Your task to perform on an android device: delete a single message in the gmail app Image 0: 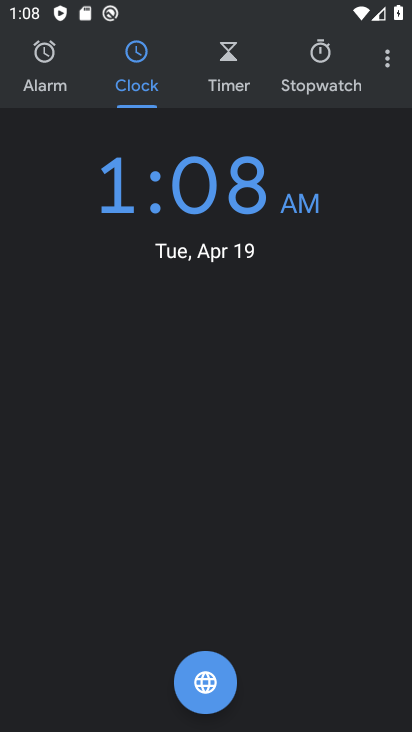
Step 0: press back button
Your task to perform on an android device: delete a single message in the gmail app Image 1: 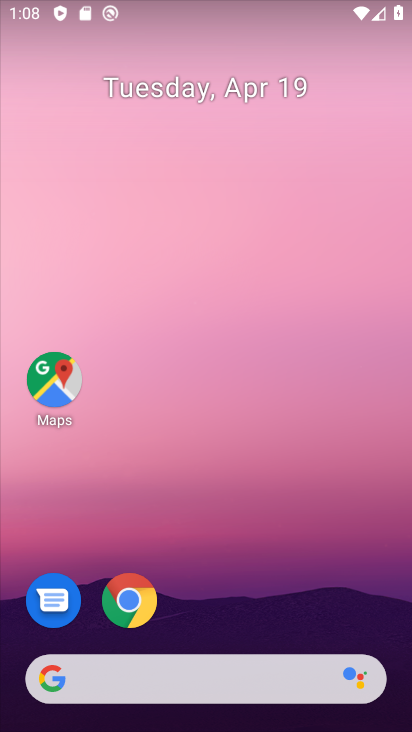
Step 1: drag from (193, 620) to (225, 87)
Your task to perform on an android device: delete a single message in the gmail app Image 2: 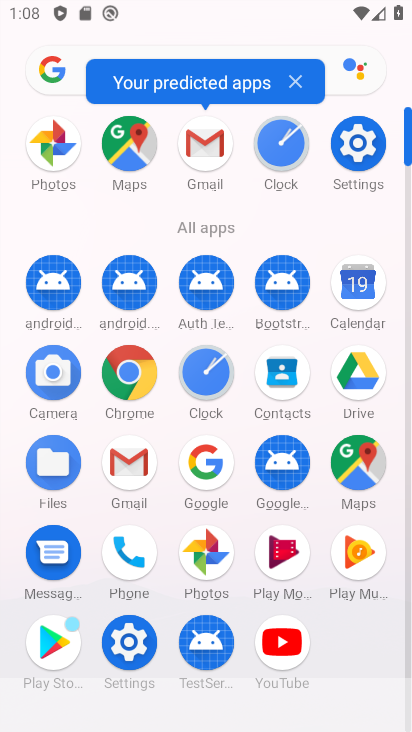
Step 2: click (124, 476)
Your task to perform on an android device: delete a single message in the gmail app Image 3: 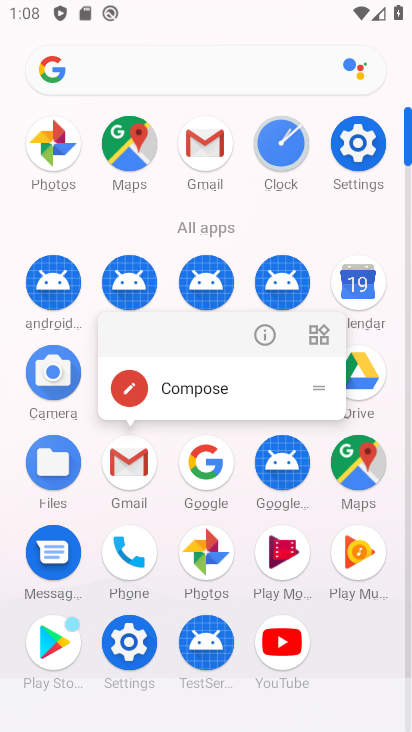
Step 3: click (123, 481)
Your task to perform on an android device: delete a single message in the gmail app Image 4: 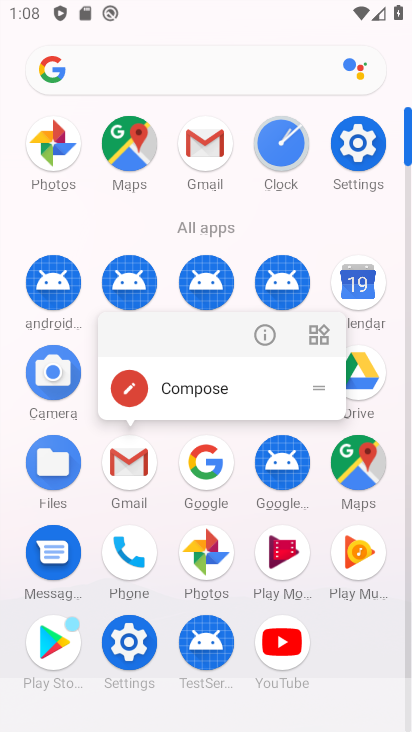
Step 4: click (92, 472)
Your task to perform on an android device: delete a single message in the gmail app Image 5: 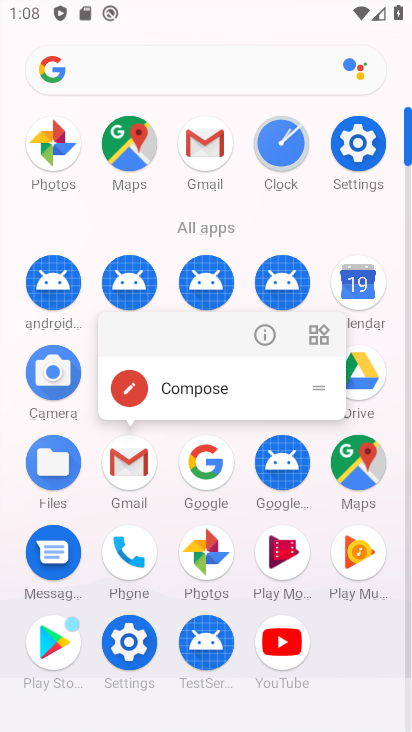
Step 5: click (127, 475)
Your task to perform on an android device: delete a single message in the gmail app Image 6: 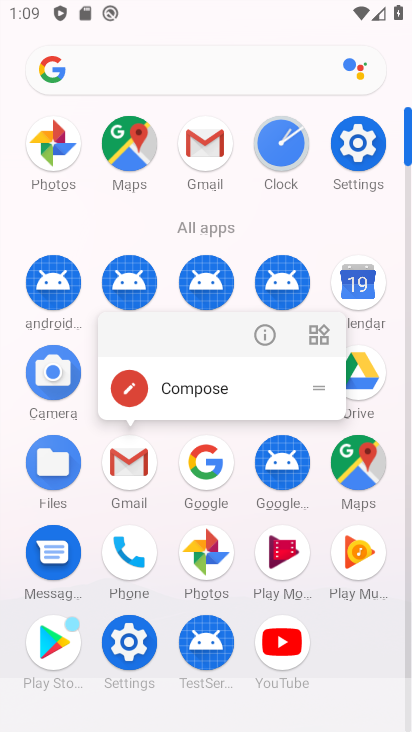
Step 6: click (144, 473)
Your task to perform on an android device: delete a single message in the gmail app Image 7: 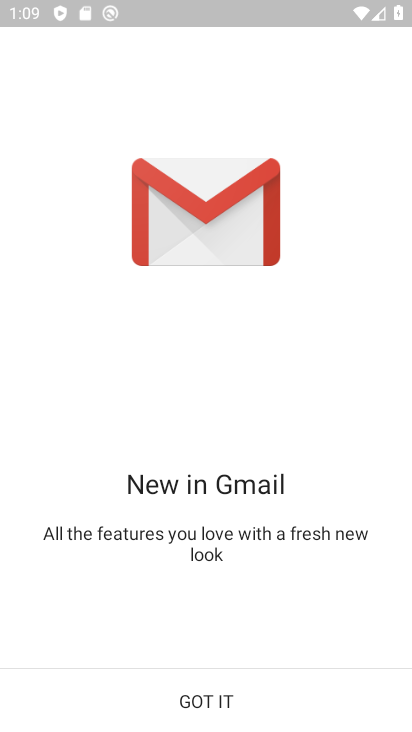
Step 7: click (246, 699)
Your task to perform on an android device: delete a single message in the gmail app Image 8: 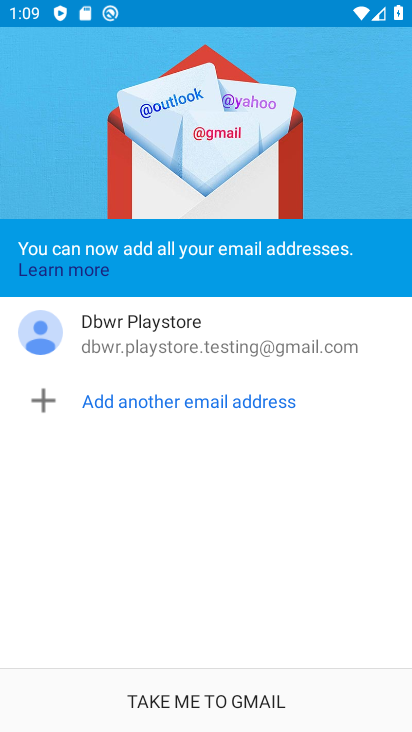
Step 8: click (237, 702)
Your task to perform on an android device: delete a single message in the gmail app Image 9: 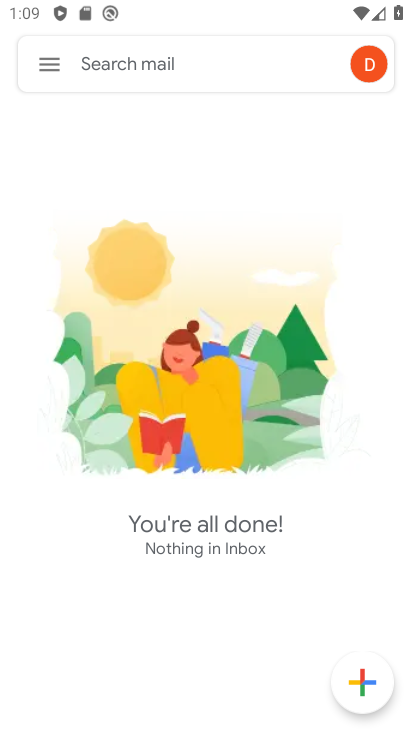
Step 9: click (52, 60)
Your task to perform on an android device: delete a single message in the gmail app Image 10: 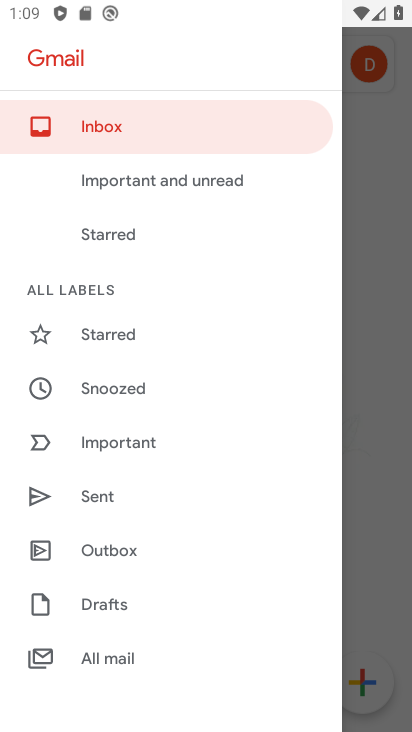
Step 10: drag from (133, 642) to (250, 279)
Your task to perform on an android device: delete a single message in the gmail app Image 11: 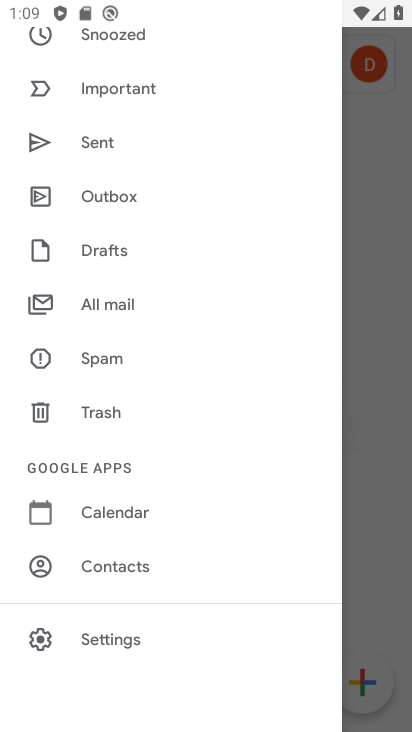
Step 11: click (163, 312)
Your task to perform on an android device: delete a single message in the gmail app Image 12: 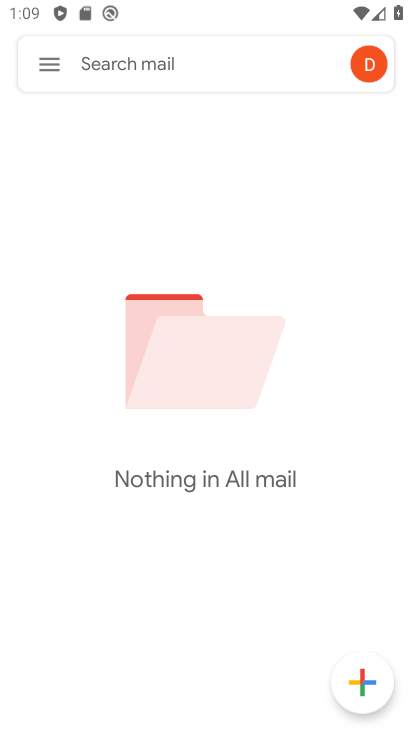
Step 12: task complete